Your task to perform on an android device: Go to location settings Image 0: 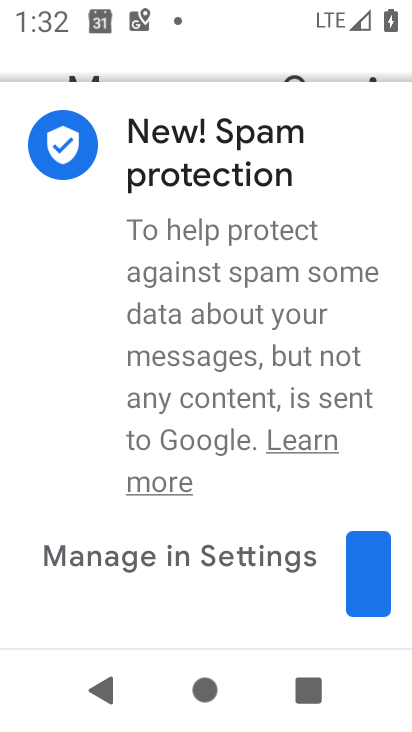
Step 0: press home button
Your task to perform on an android device: Go to location settings Image 1: 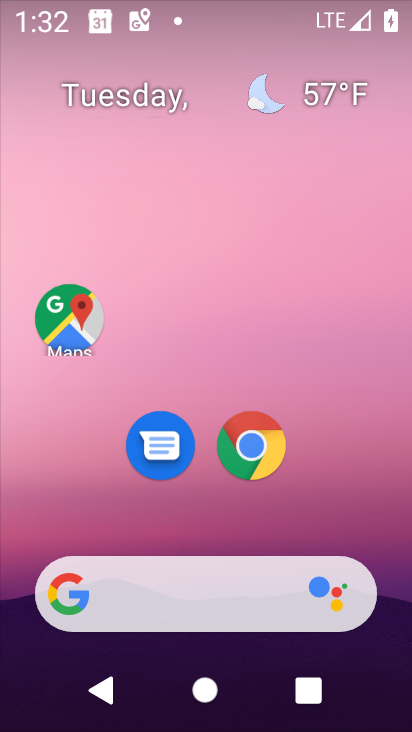
Step 1: drag from (377, 531) to (371, 155)
Your task to perform on an android device: Go to location settings Image 2: 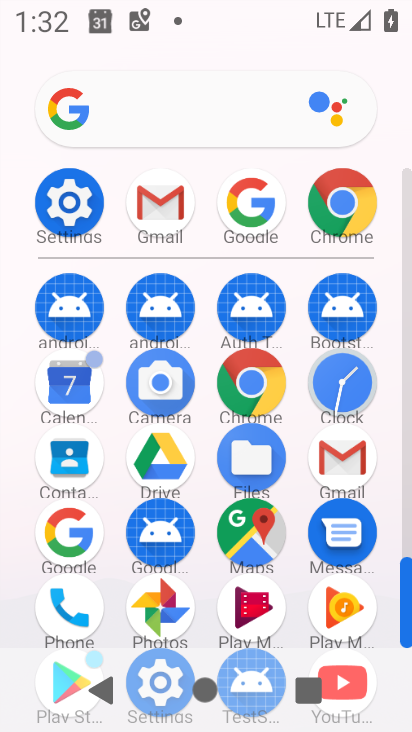
Step 2: click (71, 217)
Your task to perform on an android device: Go to location settings Image 3: 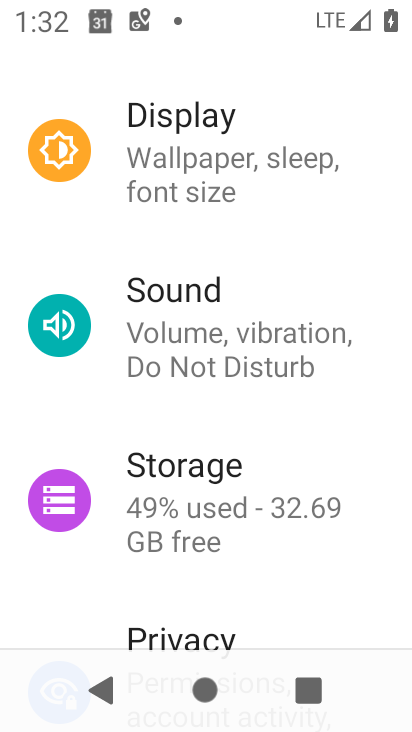
Step 3: drag from (315, 562) to (348, 381)
Your task to perform on an android device: Go to location settings Image 4: 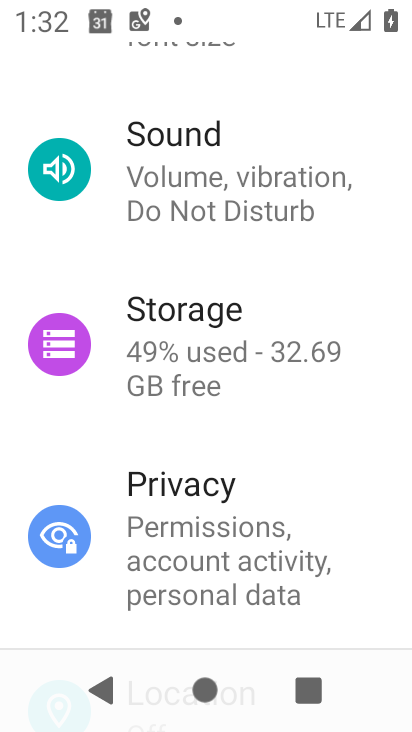
Step 4: drag from (370, 481) to (370, 360)
Your task to perform on an android device: Go to location settings Image 5: 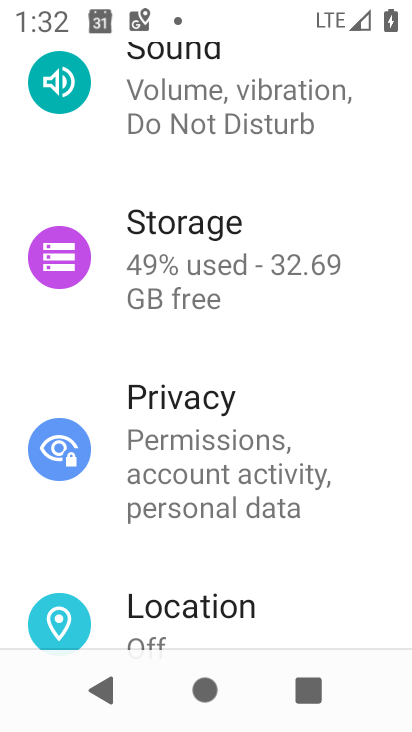
Step 5: drag from (354, 520) to (381, 314)
Your task to perform on an android device: Go to location settings Image 6: 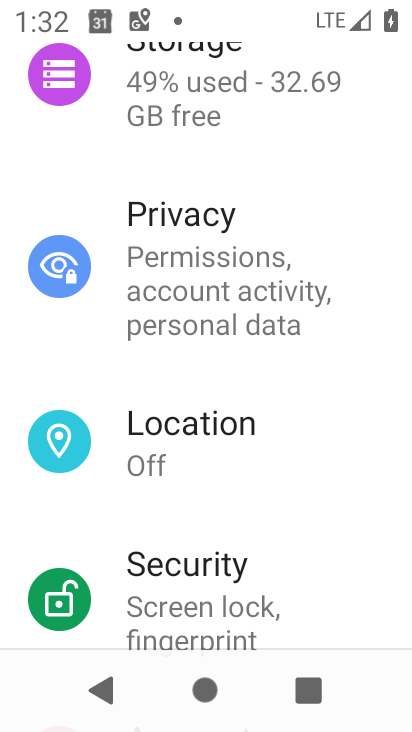
Step 6: drag from (332, 493) to (345, 236)
Your task to perform on an android device: Go to location settings Image 7: 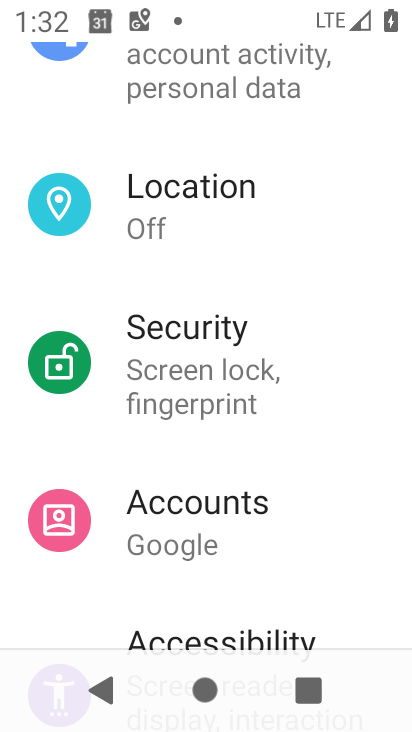
Step 7: drag from (336, 250) to (330, 387)
Your task to perform on an android device: Go to location settings Image 8: 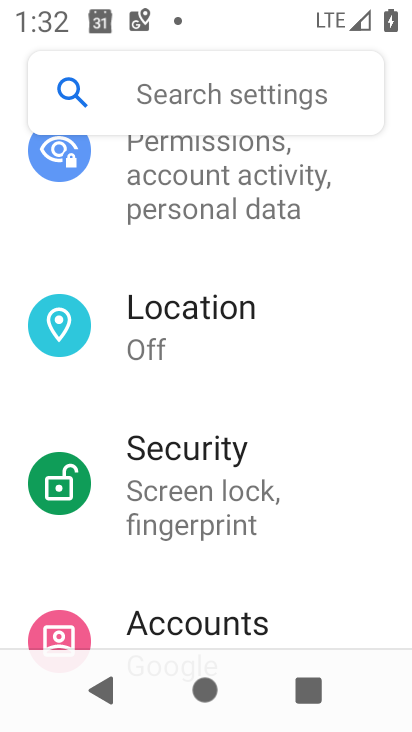
Step 8: drag from (351, 269) to (363, 422)
Your task to perform on an android device: Go to location settings Image 9: 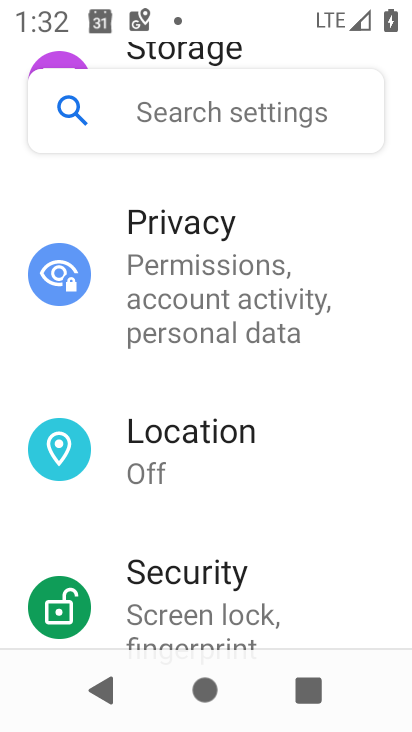
Step 9: drag from (355, 221) to (361, 397)
Your task to perform on an android device: Go to location settings Image 10: 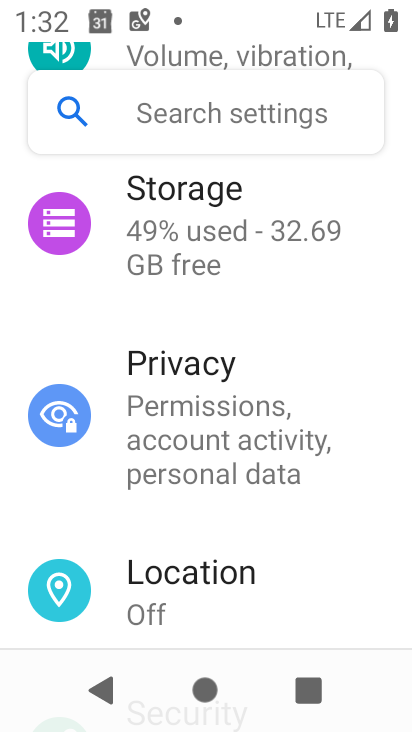
Step 10: drag from (358, 485) to (356, 333)
Your task to perform on an android device: Go to location settings Image 11: 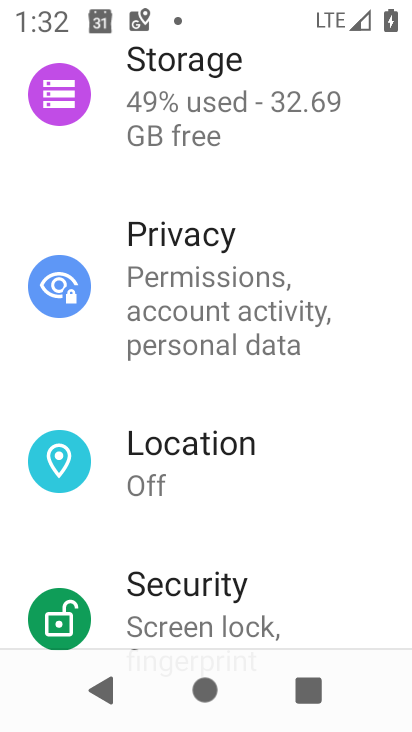
Step 11: drag from (343, 495) to (359, 338)
Your task to perform on an android device: Go to location settings Image 12: 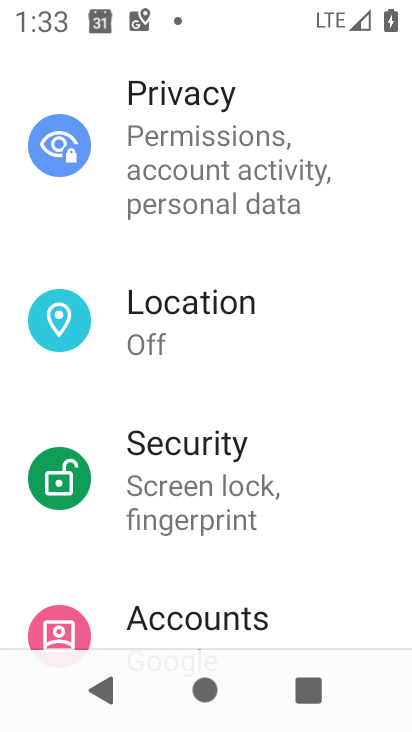
Step 12: drag from (329, 424) to (328, 307)
Your task to perform on an android device: Go to location settings Image 13: 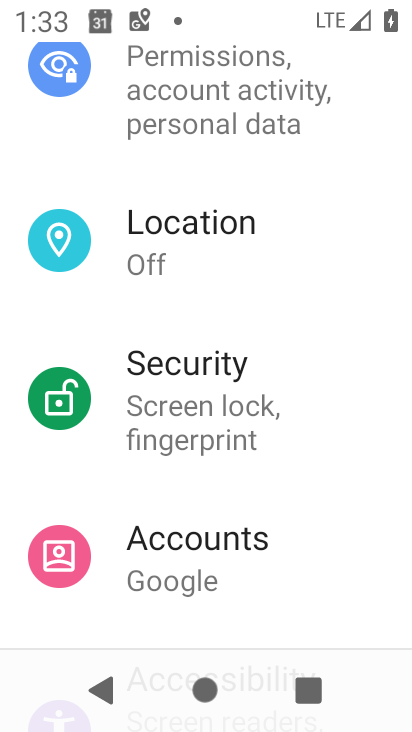
Step 13: drag from (346, 477) to (363, 312)
Your task to perform on an android device: Go to location settings Image 14: 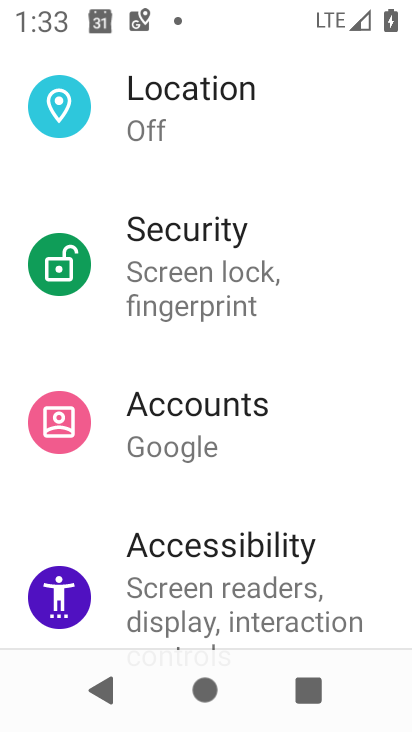
Step 14: click (231, 96)
Your task to perform on an android device: Go to location settings Image 15: 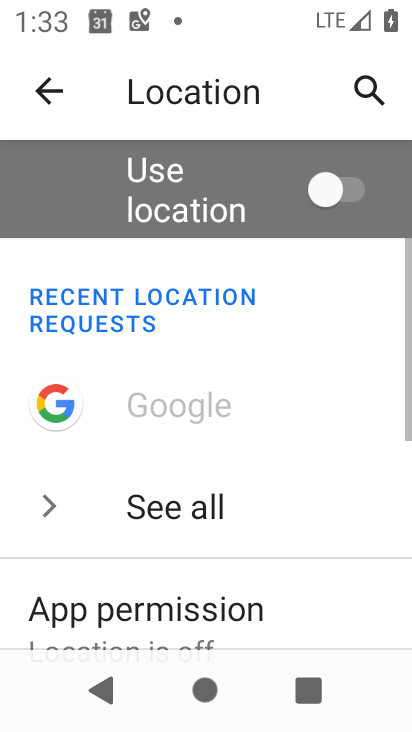
Step 15: task complete